Your task to perform on an android device: open sync settings in chrome Image 0: 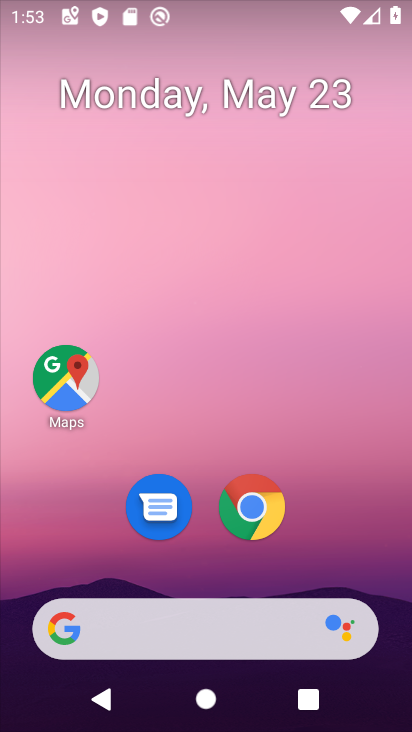
Step 0: click (258, 506)
Your task to perform on an android device: open sync settings in chrome Image 1: 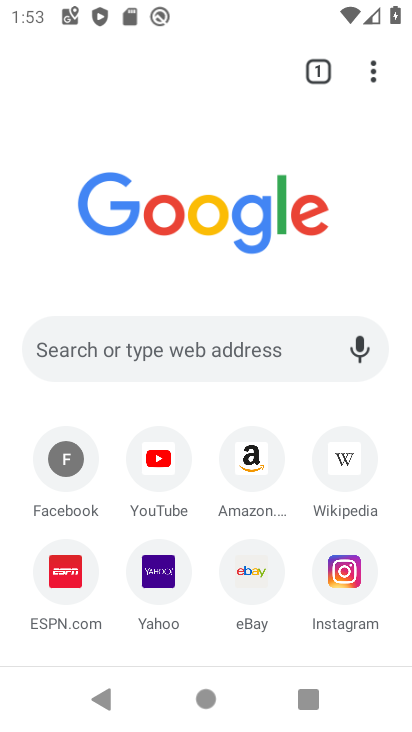
Step 1: click (373, 73)
Your task to perform on an android device: open sync settings in chrome Image 2: 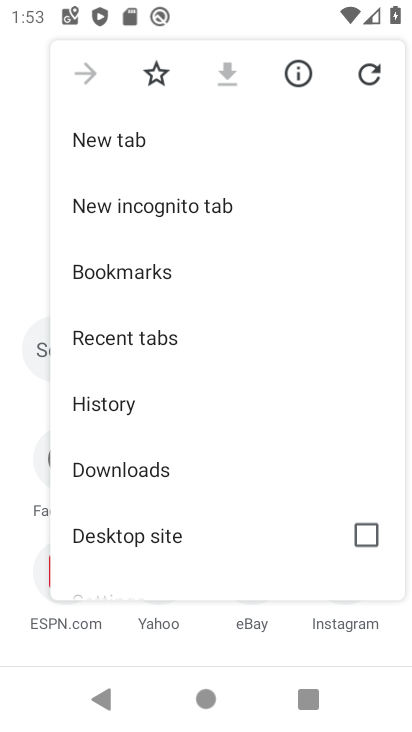
Step 2: drag from (149, 562) to (141, 259)
Your task to perform on an android device: open sync settings in chrome Image 3: 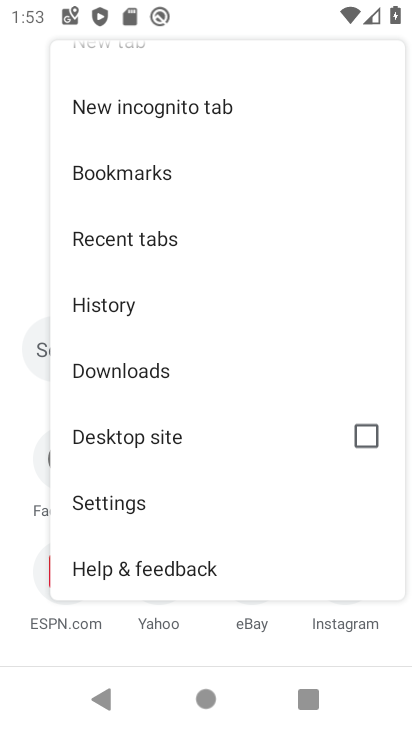
Step 3: click (108, 499)
Your task to perform on an android device: open sync settings in chrome Image 4: 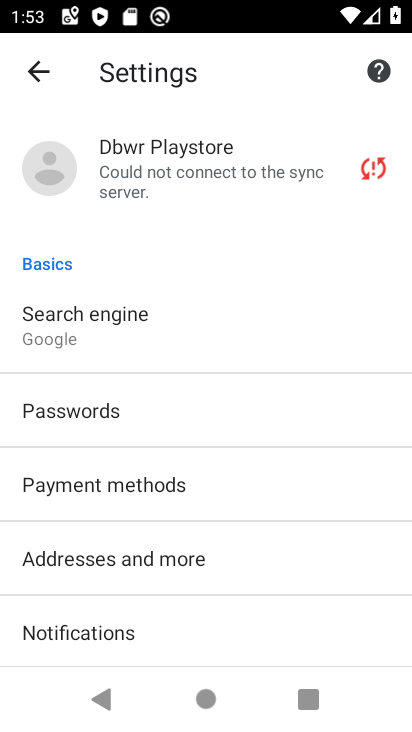
Step 4: drag from (194, 619) to (197, 204)
Your task to perform on an android device: open sync settings in chrome Image 5: 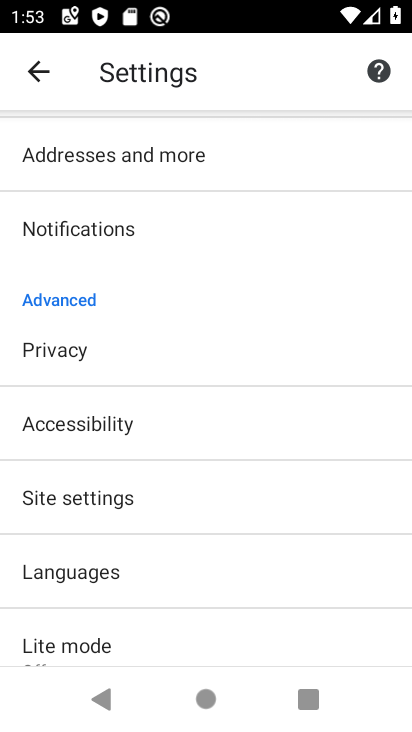
Step 5: drag from (156, 643) to (156, 295)
Your task to perform on an android device: open sync settings in chrome Image 6: 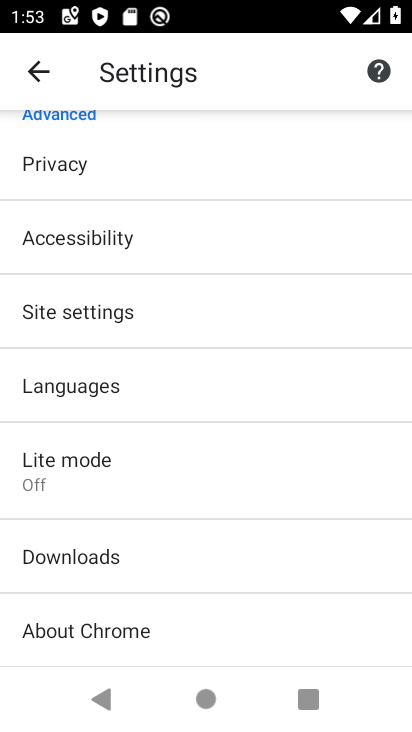
Step 6: click (95, 308)
Your task to perform on an android device: open sync settings in chrome Image 7: 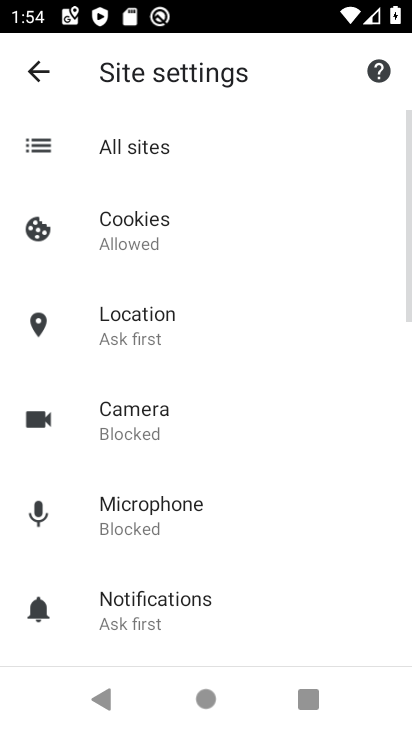
Step 7: drag from (116, 586) to (121, 239)
Your task to perform on an android device: open sync settings in chrome Image 8: 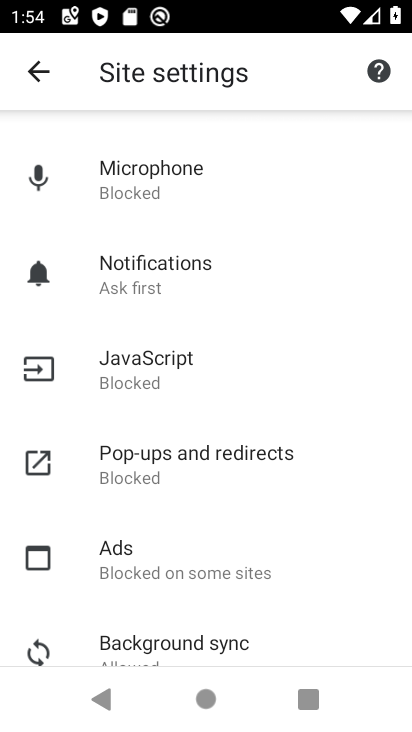
Step 8: click (146, 634)
Your task to perform on an android device: open sync settings in chrome Image 9: 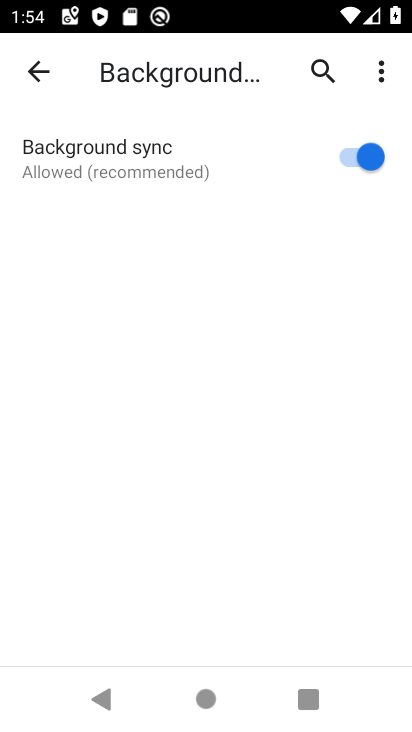
Step 9: task complete